Your task to perform on an android device: change the clock display to digital Image 0: 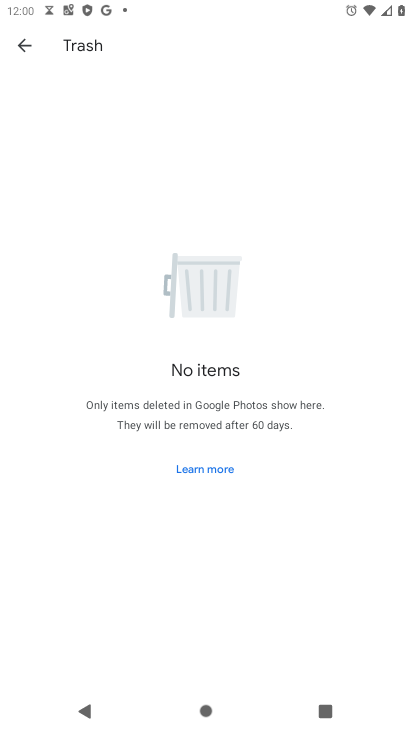
Step 0: press home button
Your task to perform on an android device: change the clock display to digital Image 1: 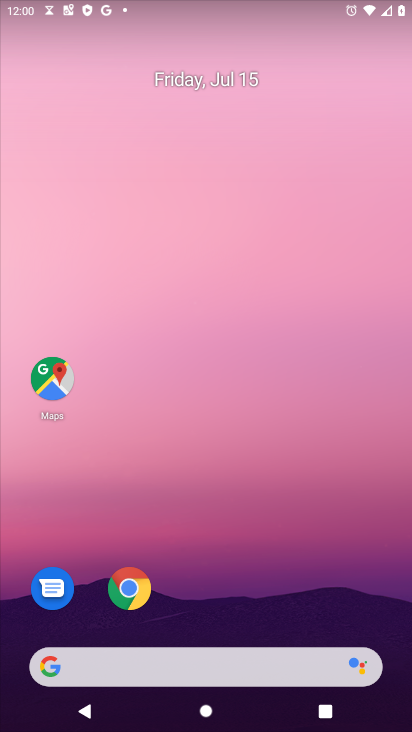
Step 1: drag from (179, 670) to (273, 230)
Your task to perform on an android device: change the clock display to digital Image 2: 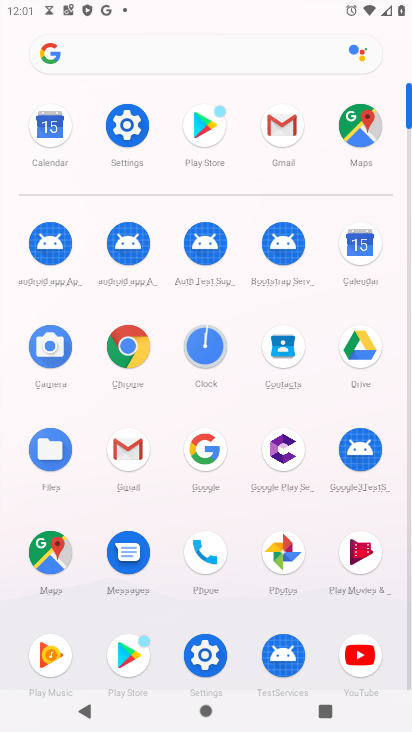
Step 2: click (196, 348)
Your task to perform on an android device: change the clock display to digital Image 3: 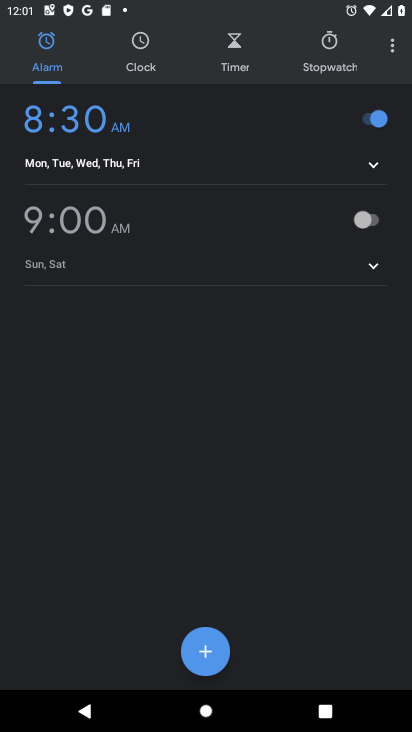
Step 3: click (390, 47)
Your task to perform on an android device: change the clock display to digital Image 4: 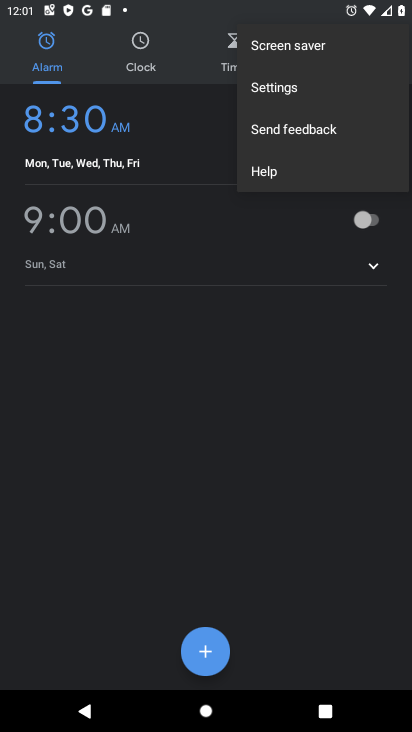
Step 4: click (269, 87)
Your task to perform on an android device: change the clock display to digital Image 5: 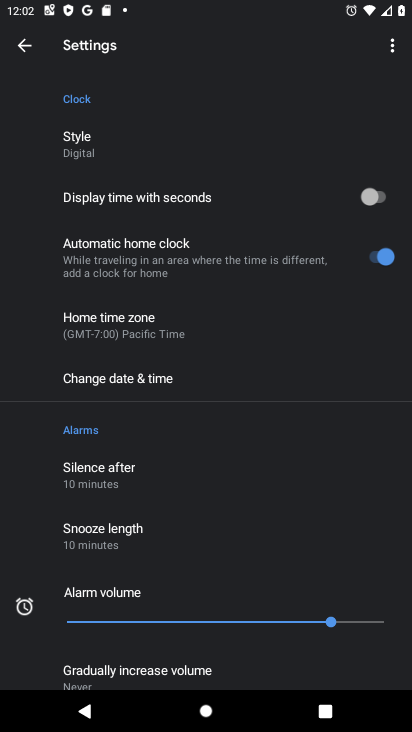
Step 5: task complete